Your task to perform on an android device: see tabs open on other devices in the chrome app Image 0: 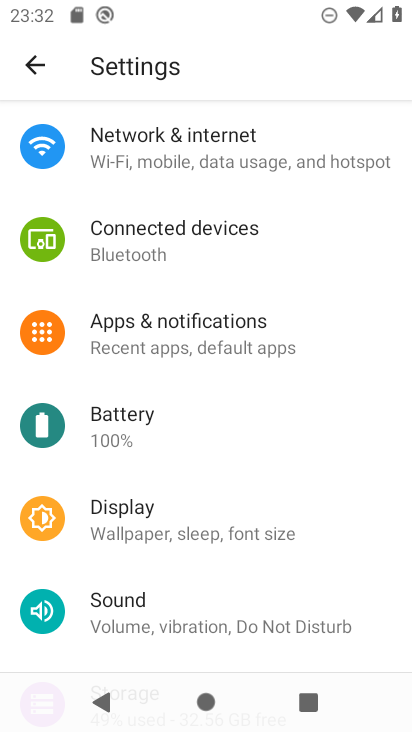
Step 0: press home button
Your task to perform on an android device: see tabs open on other devices in the chrome app Image 1: 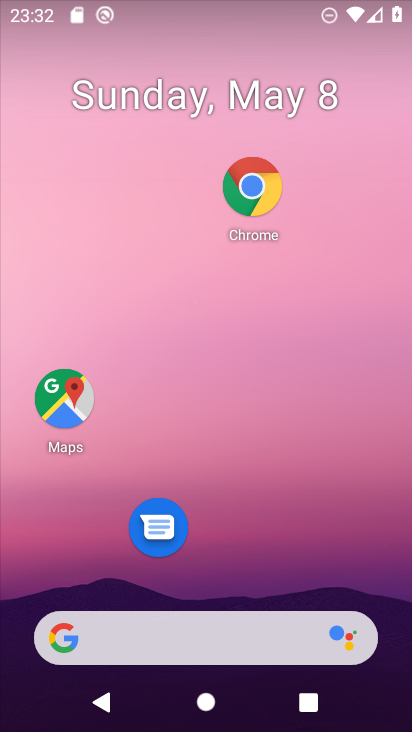
Step 1: drag from (288, 456) to (317, 289)
Your task to perform on an android device: see tabs open on other devices in the chrome app Image 2: 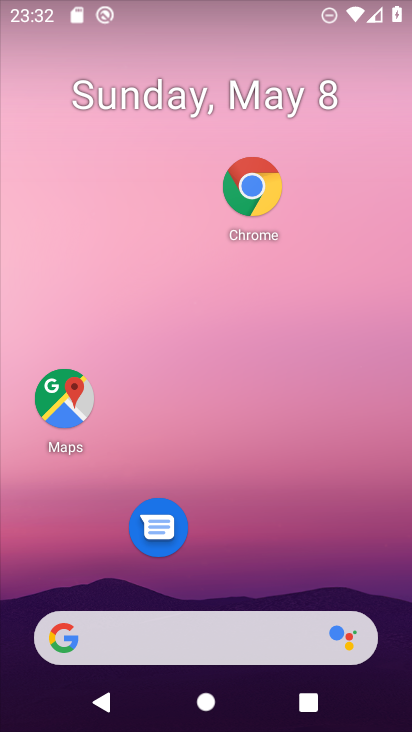
Step 2: drag from (286, 580) to (320, 337)
Your task to perform on an android device: see tabs open on other devices in the chrome app Image 3: 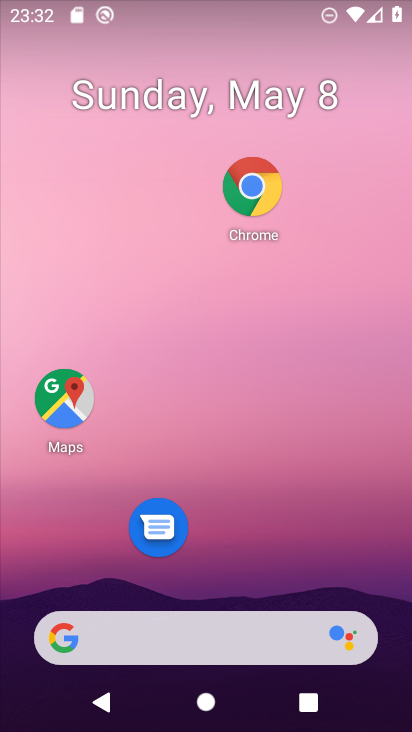
Step 3: drag from (252, 526) to (345, 206)
Your task to perform on an android device: see tabs open on other devices in the chrome app Image 4: 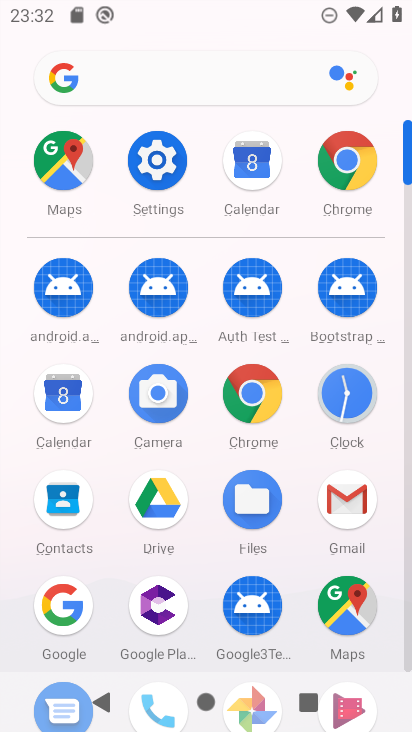
Step 4: click (246, 403)
Your task to perform on an android device: see tabs open on other devices in the chrome app Image 5: 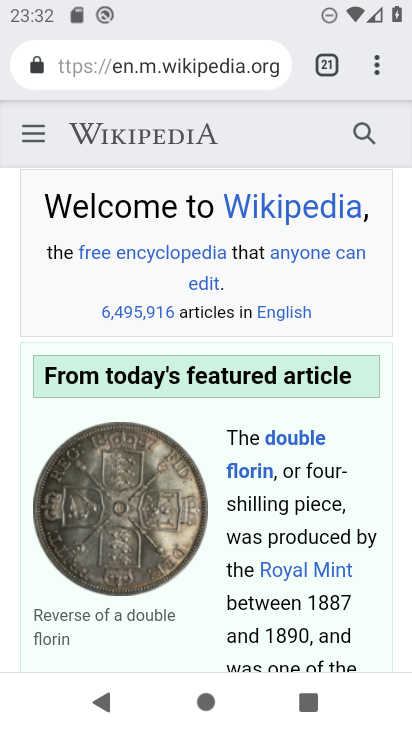
Step 5: click (370, 57)
Your task to perform on an android device: see tabs open on other devices in the chrome app Image 6: 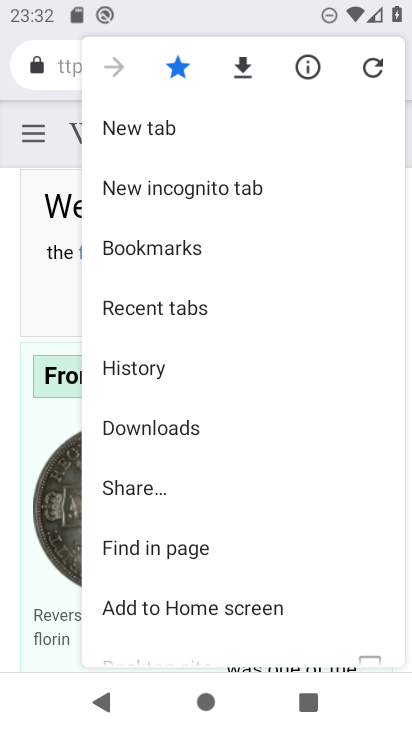
Step 6: click (145, 365)
Your task to perform on an android device: see tabs open on other devices in the chrome app Image 7: 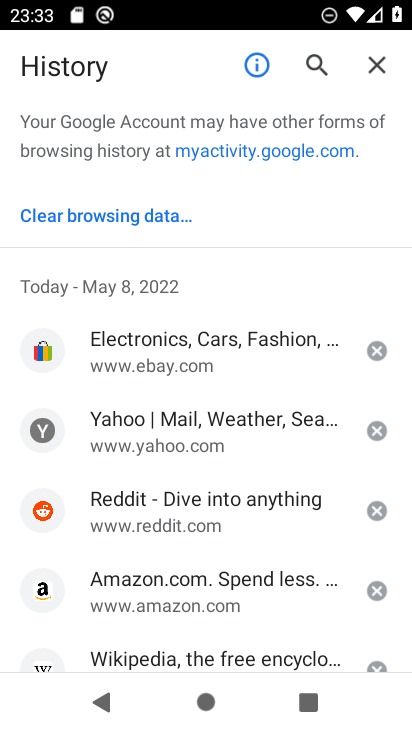
Step 7: task complete